Your task to perform on an android device: open app "Google Duo" (install if not already installed) Image 0: 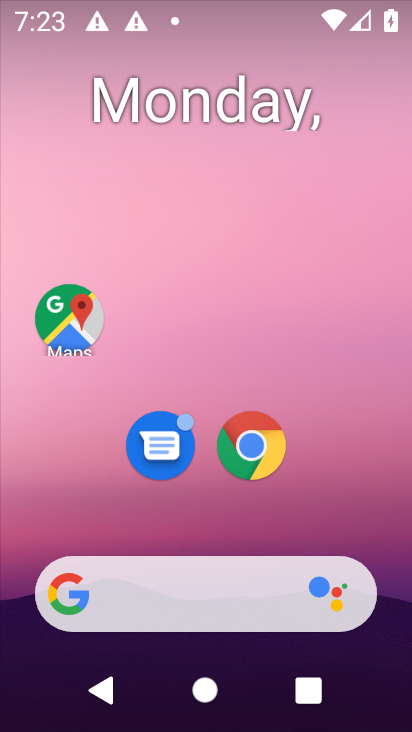
Step 0: drag from (398, 570) to (182, 50)
Your task to perform on an android device: open app "Google Duo" (install if not already installed) Image 1: 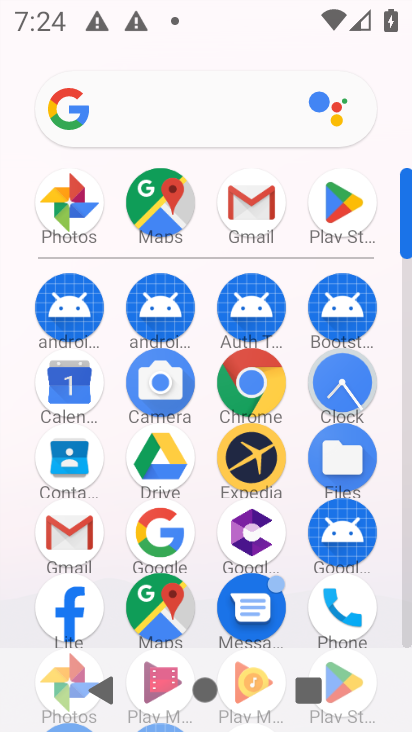
Step 1: click (368, 196)
Your task to perform on an android device: open app "Google Duo" (install if not already installed) Image 2: 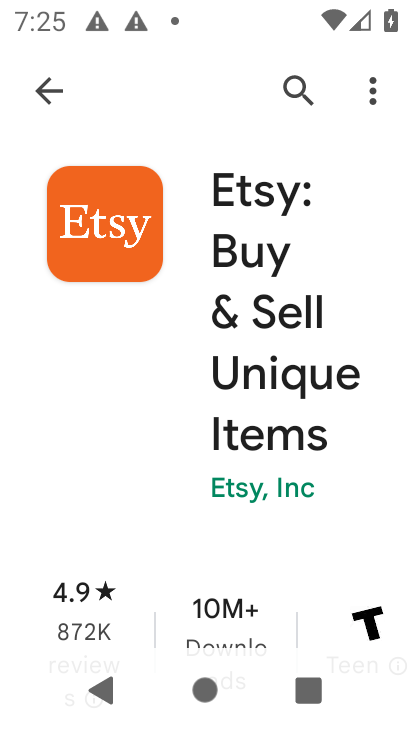
Step 2: press back button
Your task to perform on an android device: open app "Google Duo" (install if not already installed) Image 3: 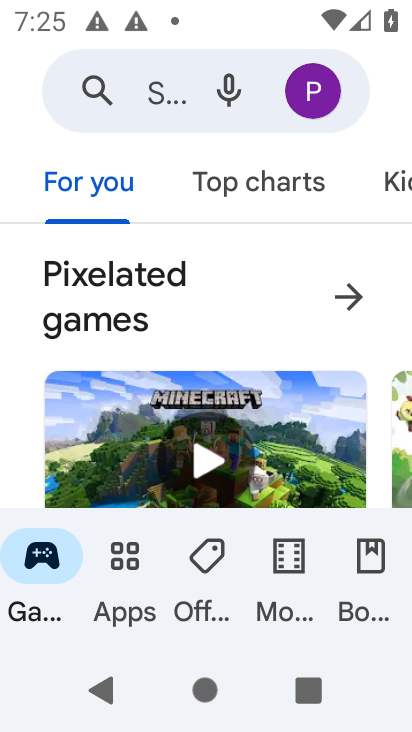
Step 3: click (167, 91)
Your task to perform on an android device: open app "Google Duo" (install if not already installed) Image 4: 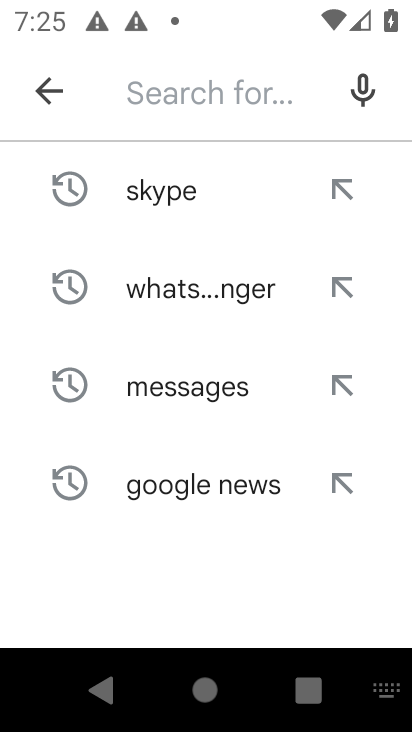
Step 4: type "Google Duo"
Your task to perform on an android device: open app "Google Duo" (install if not already installed) Image 5: 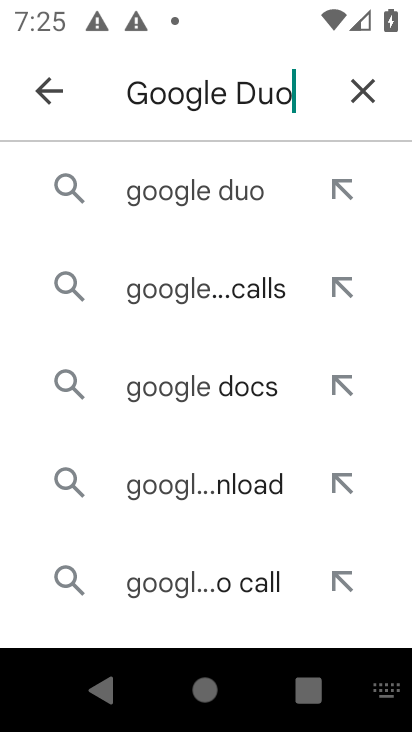
Step 5: click (197, 205)
Your task to perform on an android device: open app "Google Duo" (install if not already installed) Image 6: 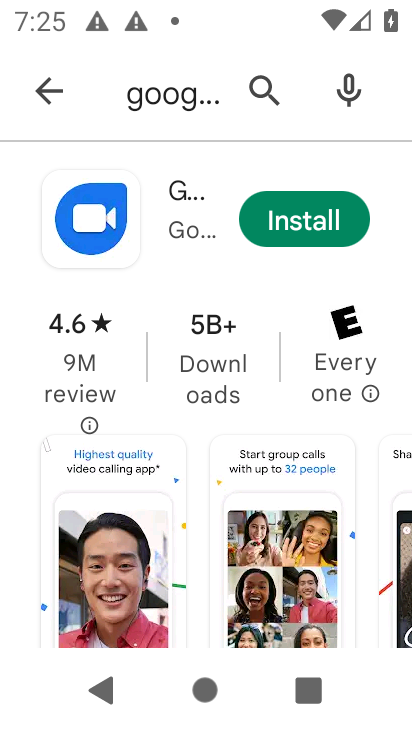
Step 6: task complete